Your task to perform on an android device: See recent photos Image 0: 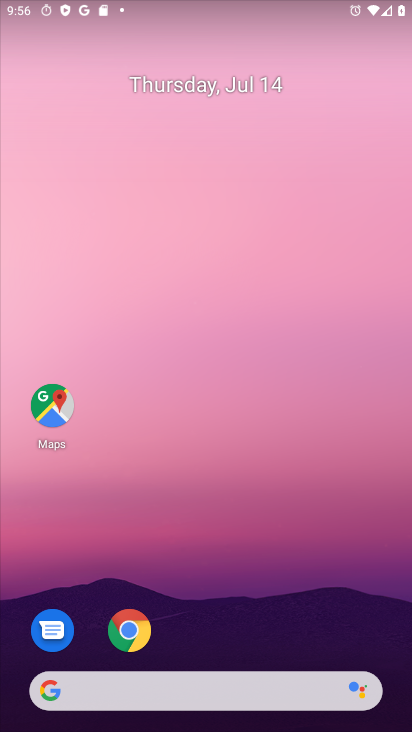
Step 0: drag from (127, 441) to (213, 26)
Your task to perform on an android device: See recent photos Image 1: 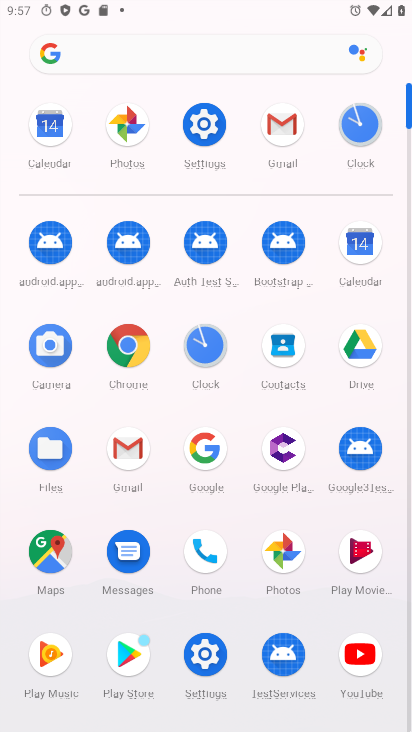
Step 1: click (266, 562)
Your task to perform on an android device: See recent photos Image 2: 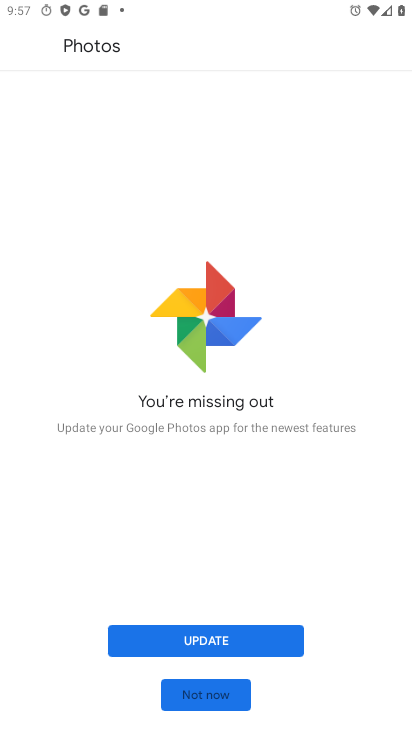
Step 2: click (204, 640)
Your task to perform on an android device: See recent photos Image 3: 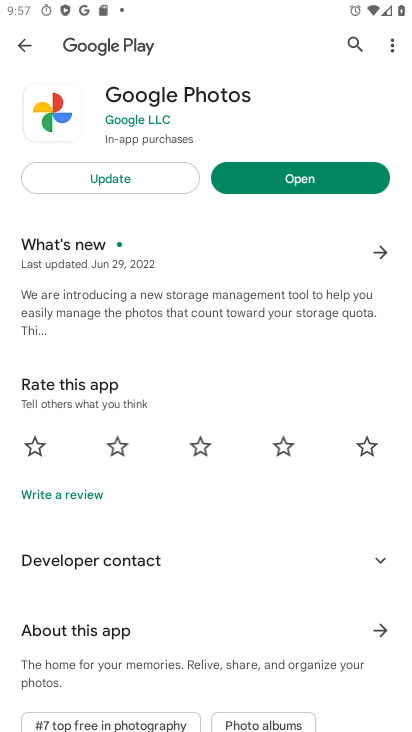
Step 3: click (275, 183)
Your task to perform on an android device: See recent photos Image 4: 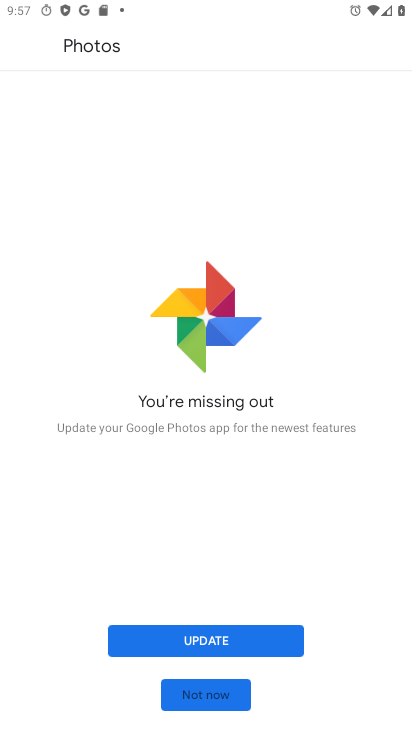
Step 4: task complete